Your task to perform on an android device: Go to network settings Image 0: 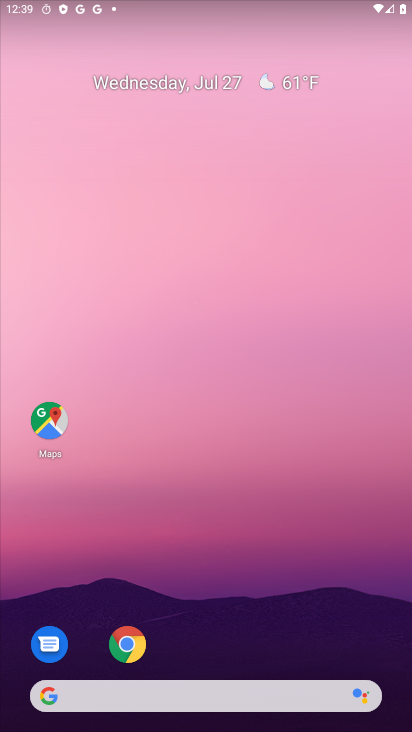
Step 0: drag from (189, 520) to (190, 359)
Your task to perform on an android device: Go to network settings Image 1: 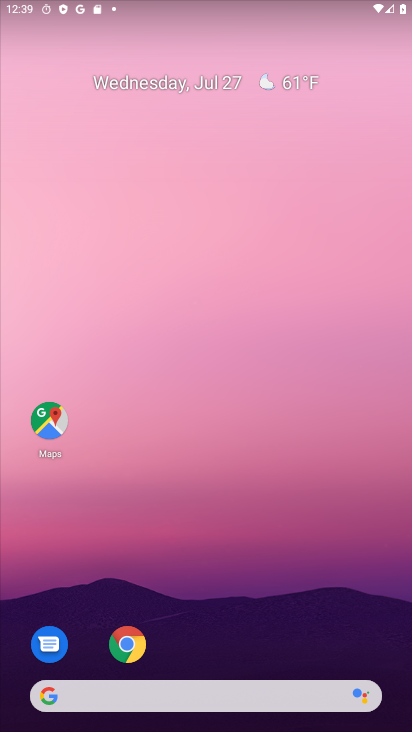
Step 1: drag from (175, 635) to (173, 135)
Your task to perform on an android device: Go to network settings Image 2: 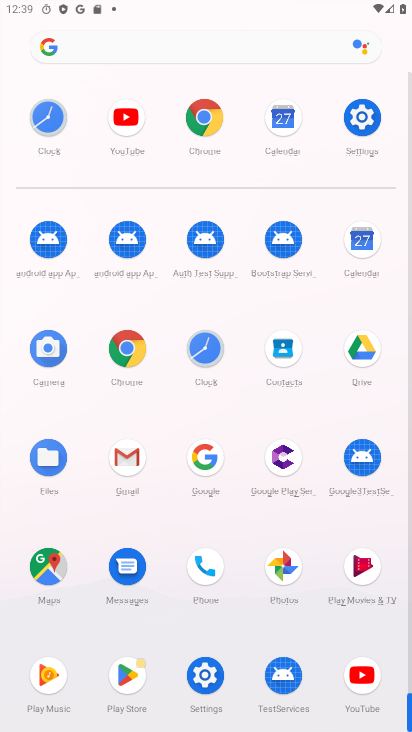
Step 2: click (375, 113)
Your task to perform on an android device: Go to network settings Image 3: 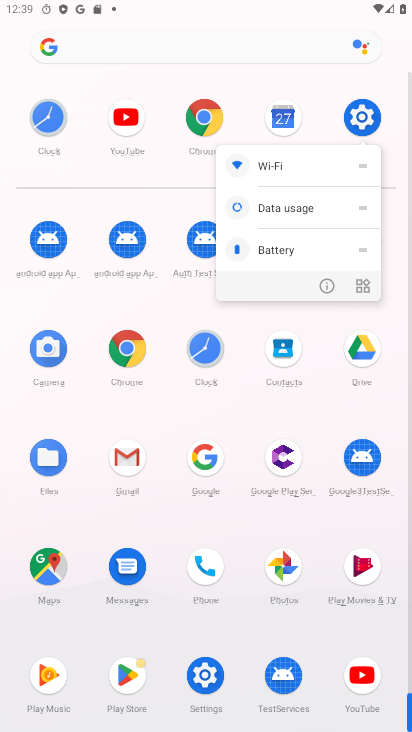
Step 3: click (323, 290)
Your task to perform on an android device: Go to network settings Image 4: 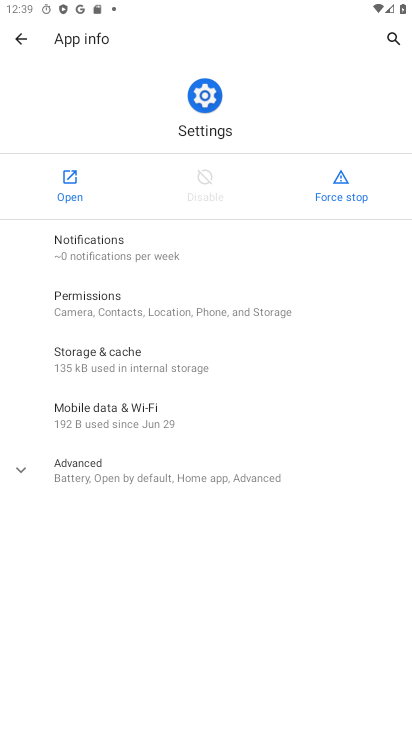
Step 4: click (83, 178)
Your task to perform on an android device: Go to network settings Image 5: 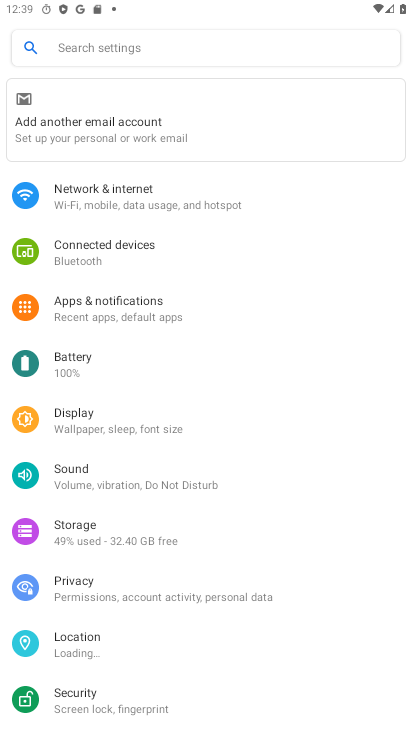
Step 5: click (128, 196)
Your task to perform on an android device: Go to network settings Image 6: 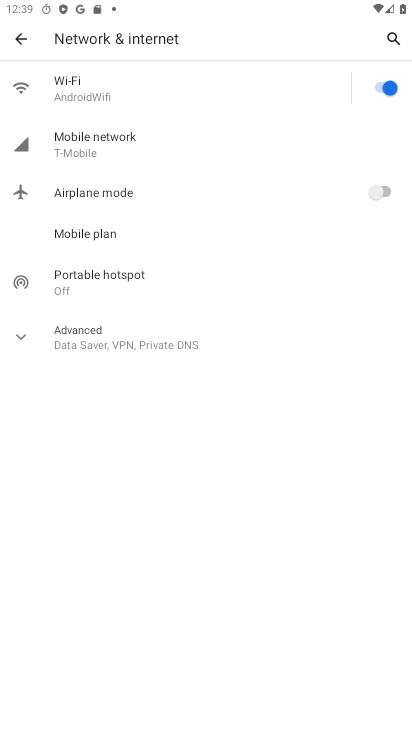
Step 6: task complete